Your task to perform on an android device: check battery use Image 0: 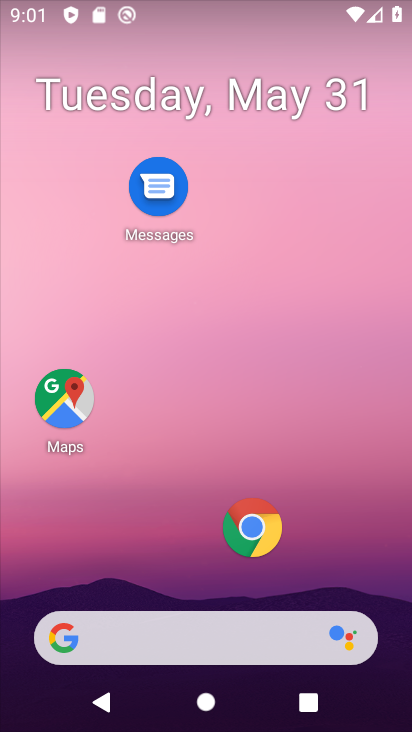
Step 0: drag from (213, 581) to (208, 137)
Your task to perform on an android device: check battery use Image 1: 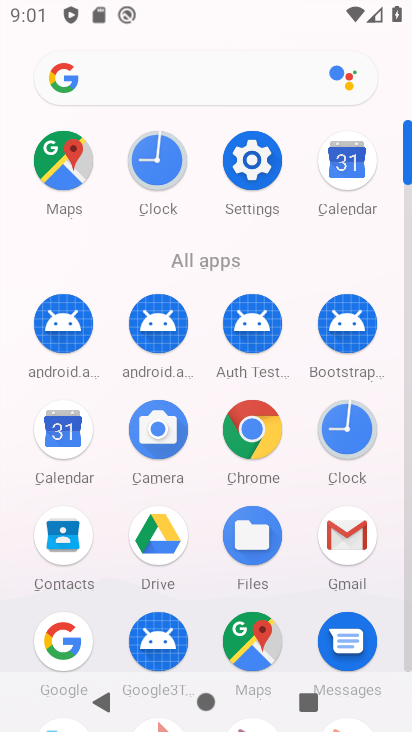
Step 1: click (253, 171)
Your task to perform on an android device: check battery use Image 2: 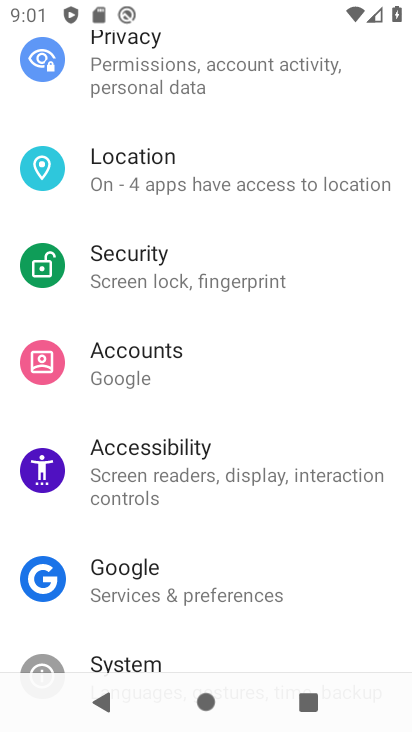
Step 2: drag from (173, 247) to (131, 570)
Your task to perform on an android device: check battery use Image 3: 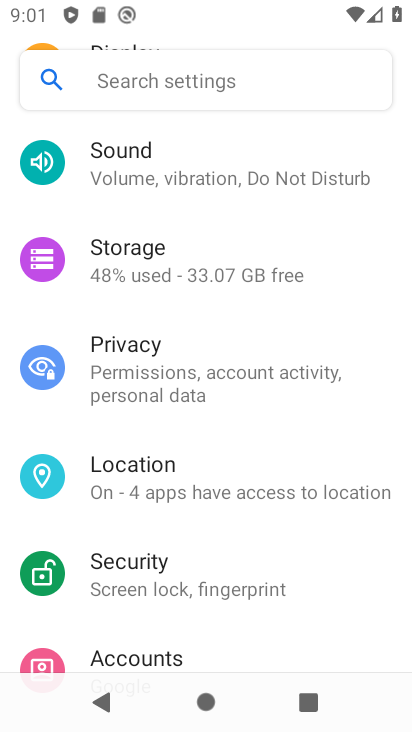
Step 3: drag from (163, 337) to (169, 487)
Your task to perform on an android device: check battery use Image 4: 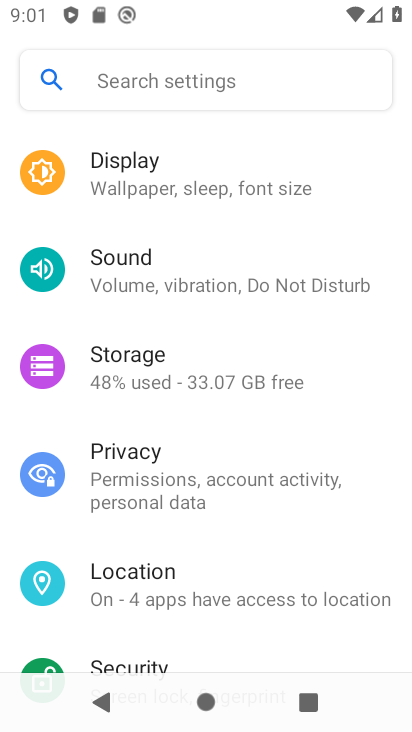
Step 4: drag from (168, 245) to (168, 480)
Your task to perform on an android device: check battery use Image 5: 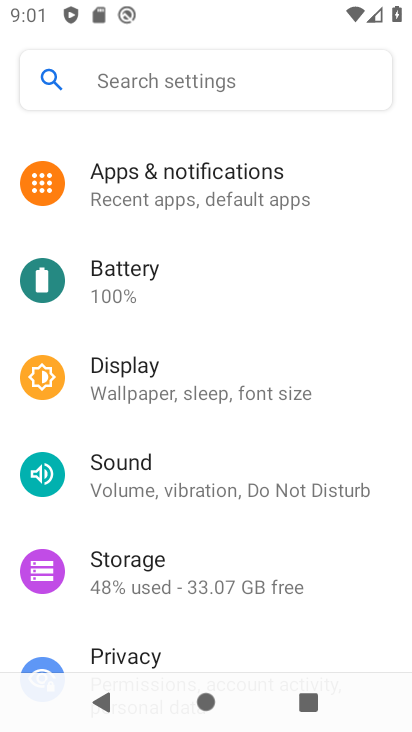
Step 5: click (140, 285)
Your task to perform on an android device: check battery use Image 6: 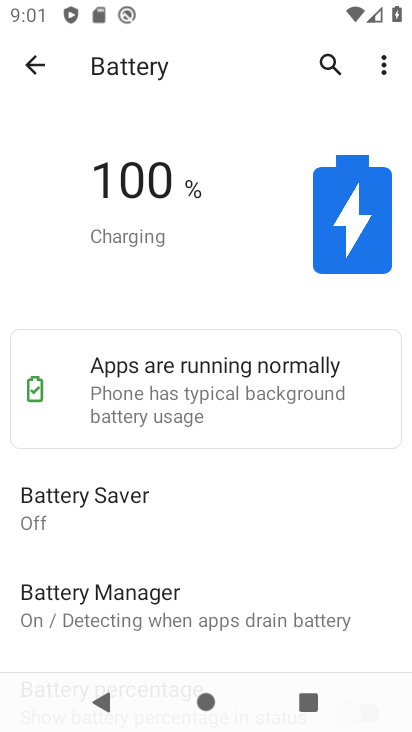
Step 6: task complete